Your task to perform on an android device: Open Amazon Image 0: 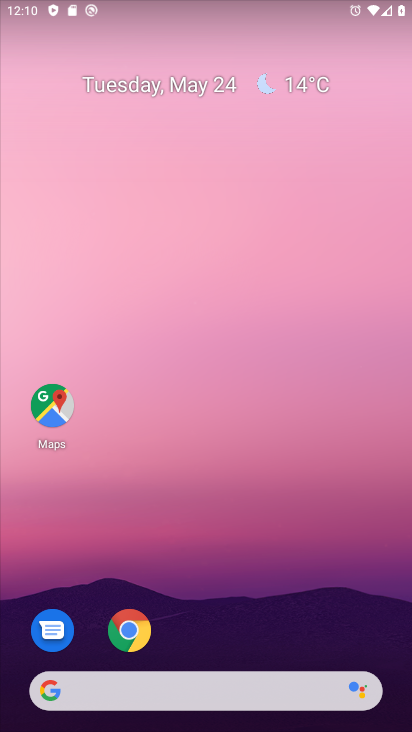
Step 0: drag from (309, 636) to (280, 205)
Your task to perform on an android device: Open Amazon Image 1: 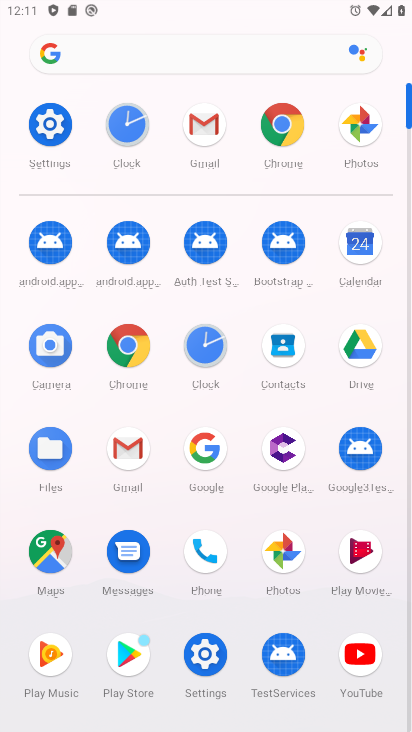
Step 1: click (128, 352)
Your task to perform on an android device: Open Amazon Image 2: 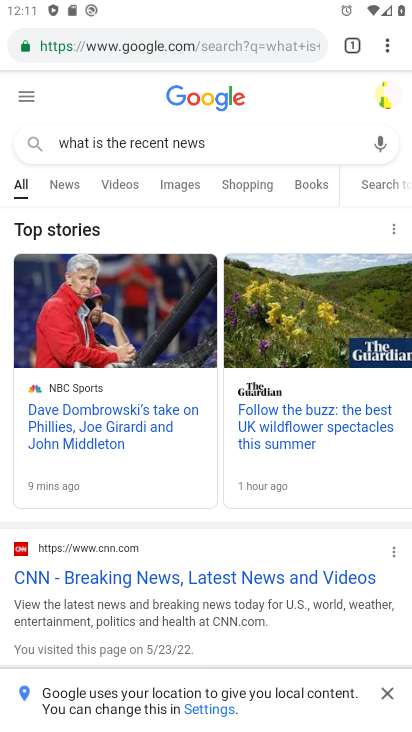
Step 2: click (150, 54)
Your task to perform on an android device: Open Amazon Image 3: 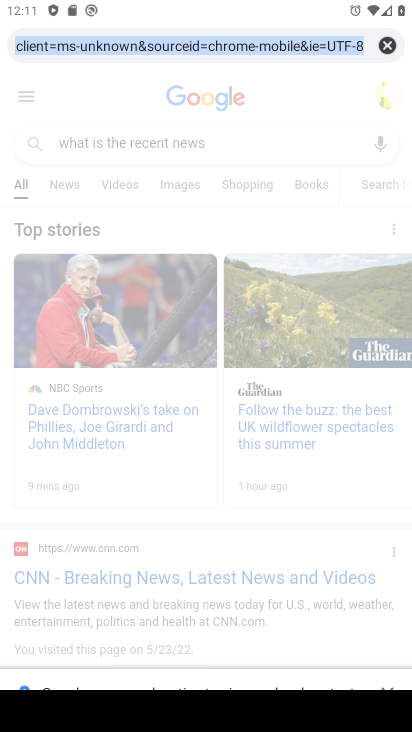
Step 3: click (389, 49)
Your task to perform on an android device: Open Amazon Image 4: 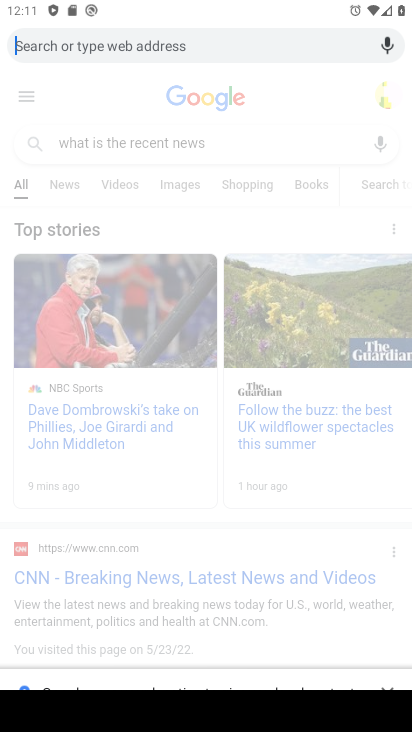
Step 4: type "amazon.com"
Your task to perform on an android device: Open Amazon Image 5: 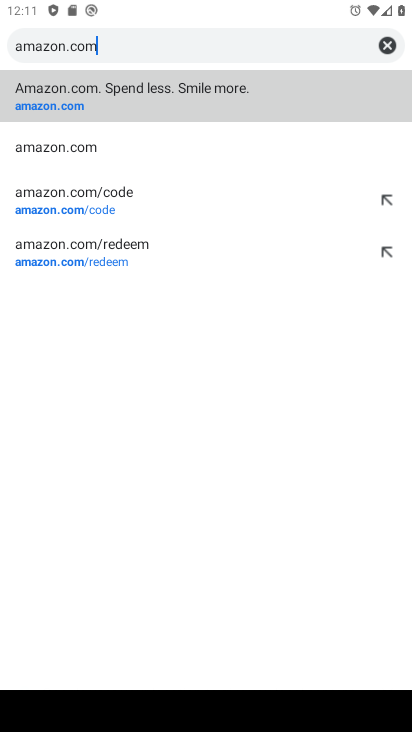
Step 5: click (79, 103)
Your task to perform on an android device: Open Amazon Image 6: 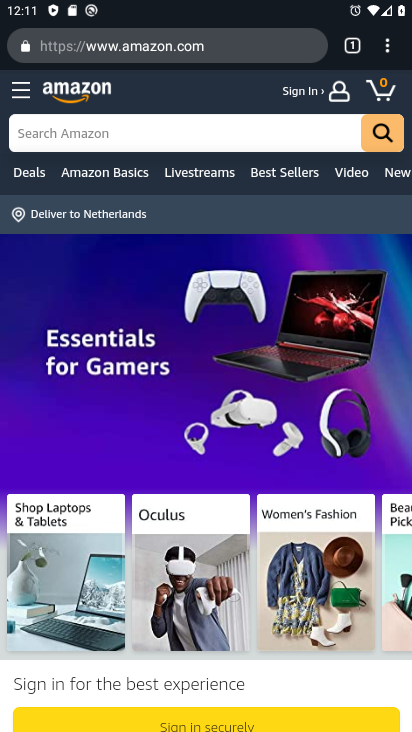
Step 6: task complete